Your task to perform on an android device: Check the weather Image 0: 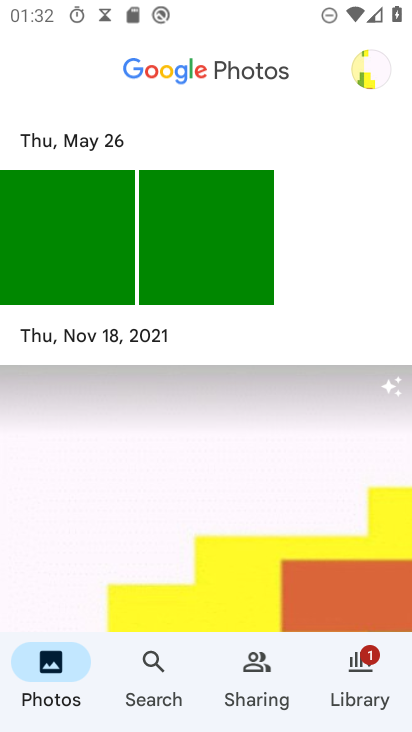
Step 0: press home button
Your task to perform on an android device: Check the weather Image 1: 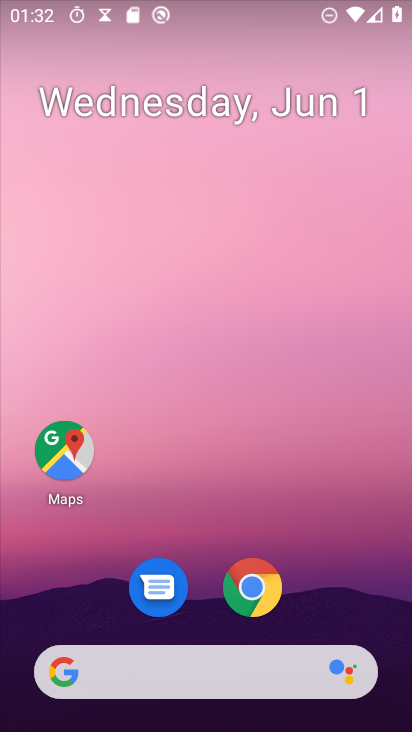
Step 1: click (172, 684)
Your task to perform on an android device: Check the weather Image 2: 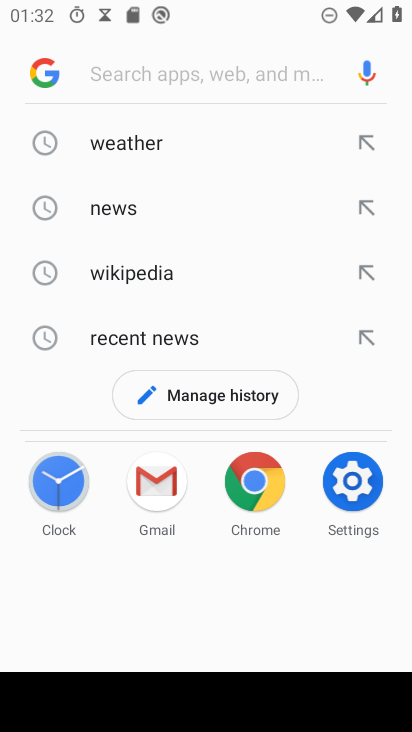
Step 2: type "weather"
Your task to perform on an android device: Check the weather Image 3: 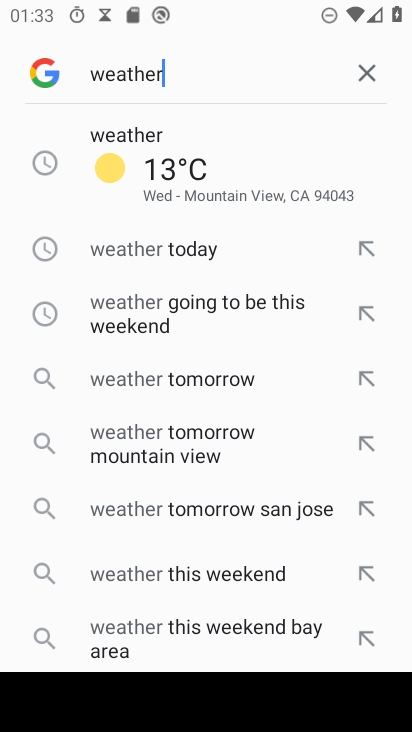
Step 3: click (183, 160)
Your task to perform on an android device: Check the weather Image 4: 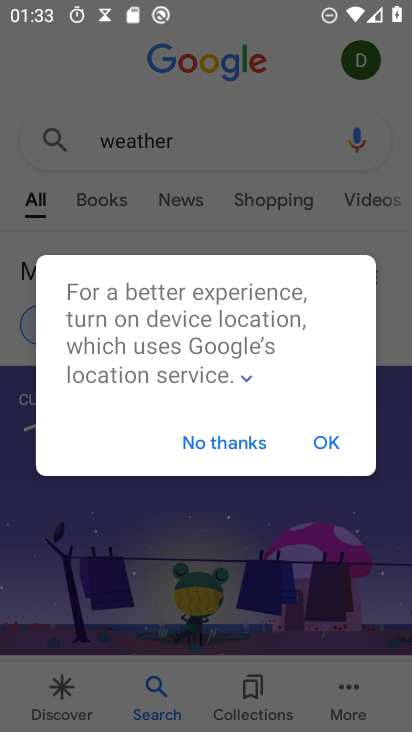
Step 4: click (224, 440)
Your task to perform on an android device: Check the weather Image 5: 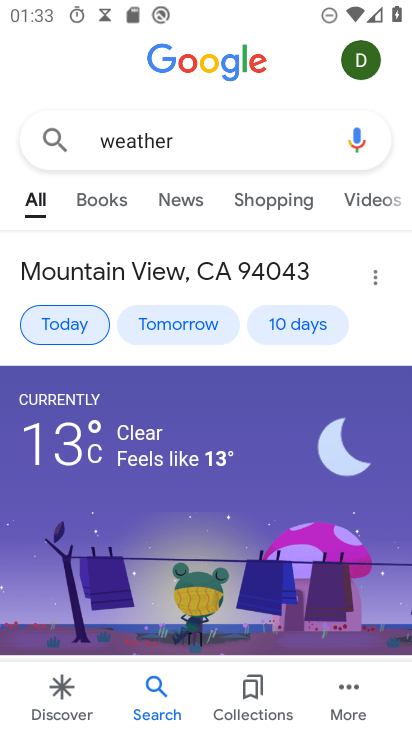
Step 5: task complete